Your task to perform on an android device: add a contact Image 0: 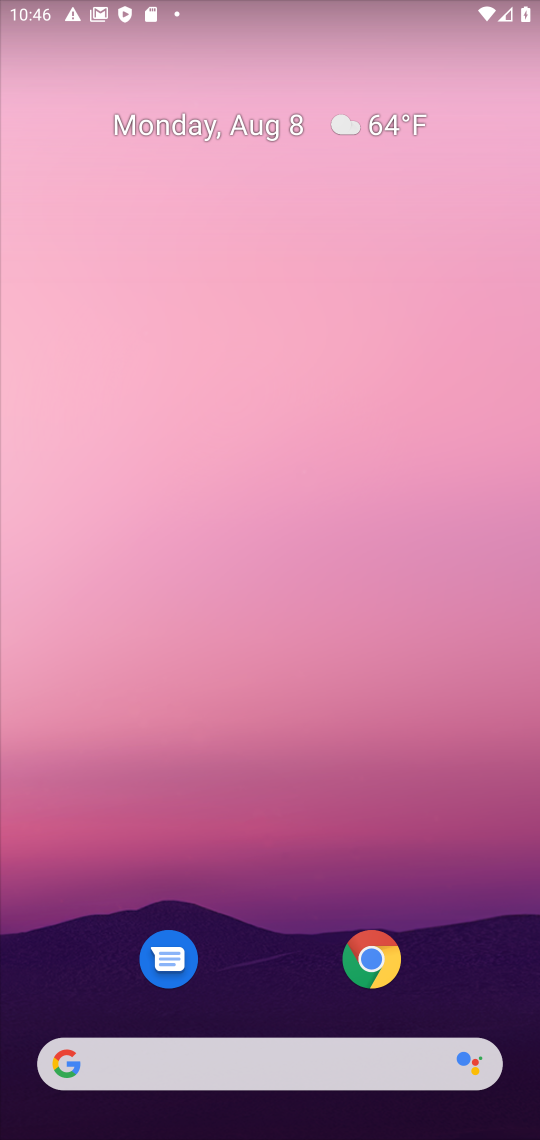
Step 0: drag from (283, 1003) to (187, 391)
Your task to perform on an android device: add a contact Image 1: 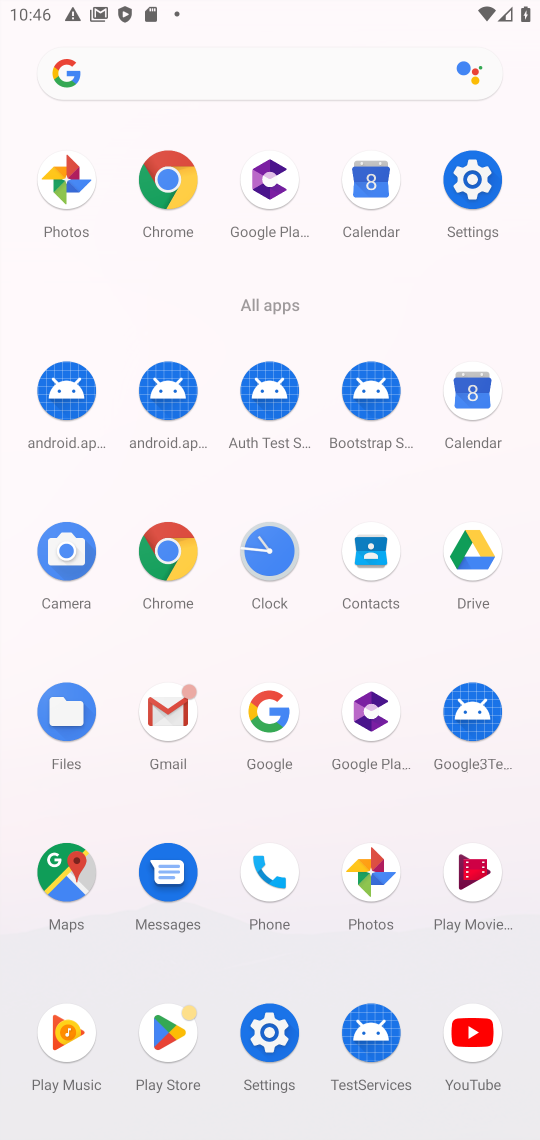
Step 1: click (375, 561)
Your task to perform on an android device: add a contact Image 2: 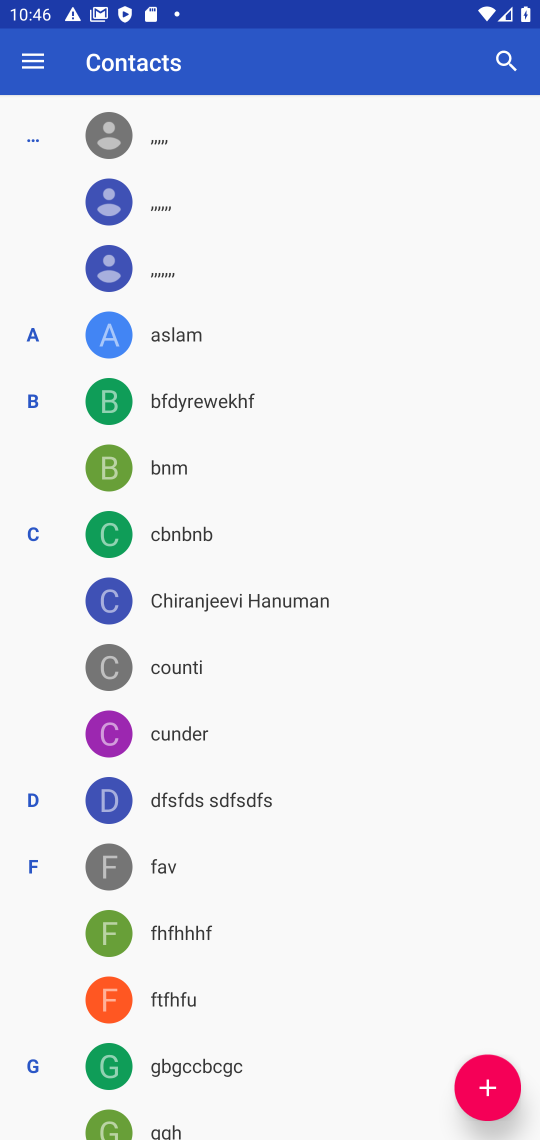
Step 2: click (489, 1114)
Your task to perform on an android device: add a contact Image 3: 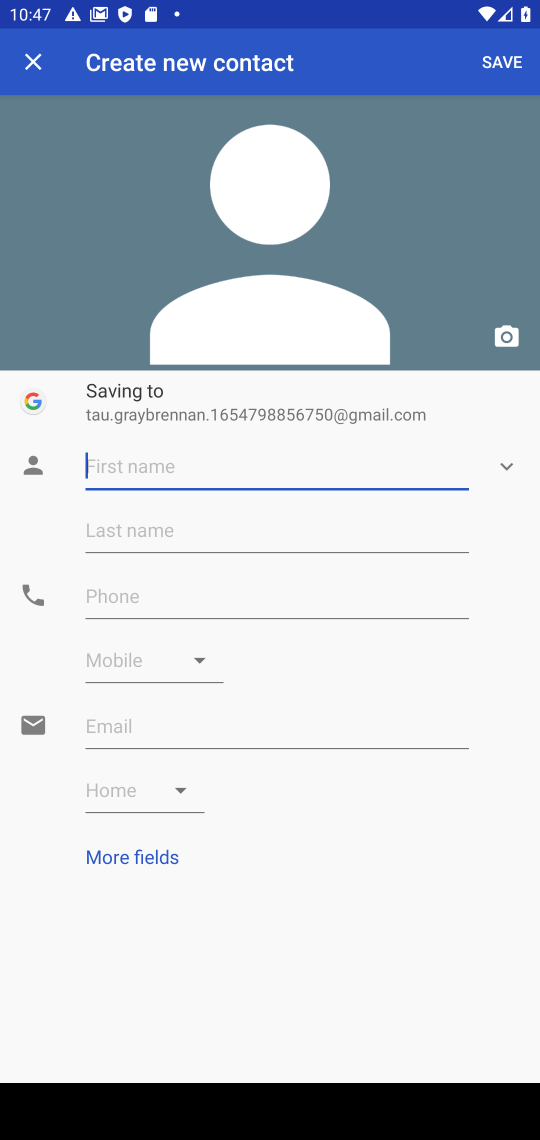
Step 3: type "vjggv"
Your task to perform on an android device: add a contact Image 4: 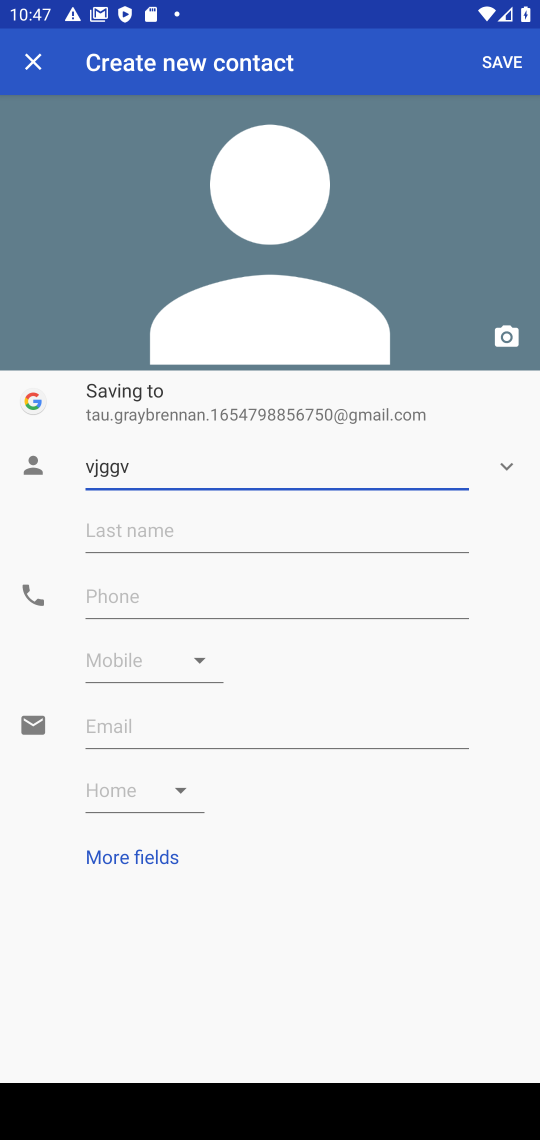
Step 4: click (299, 608)
Your task to perform on an android device: add a contact Image 5: 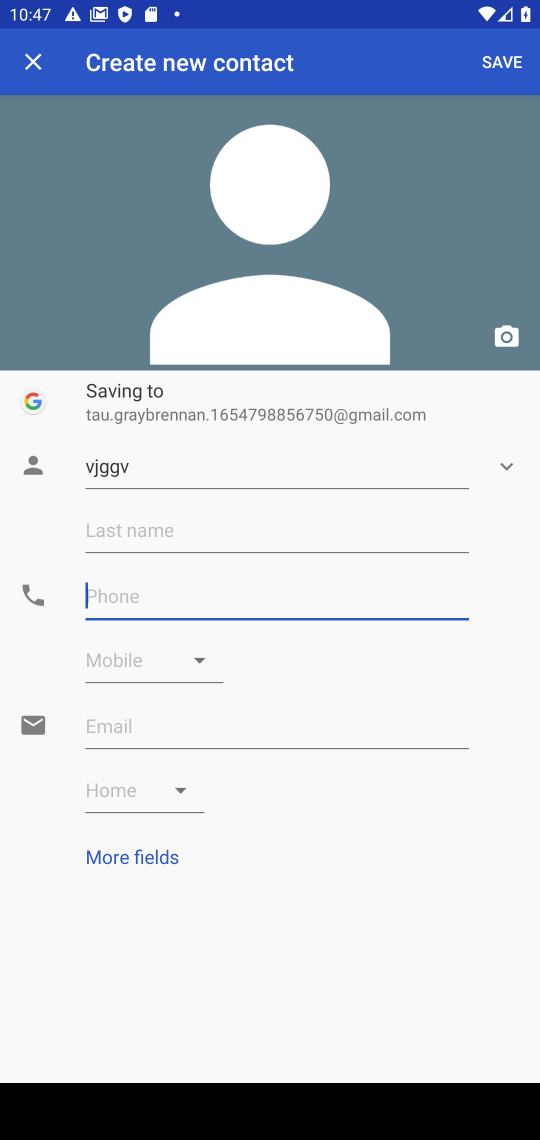
Step 5: type "9769"
Your task to perform on an android device: add a contact Image 6: 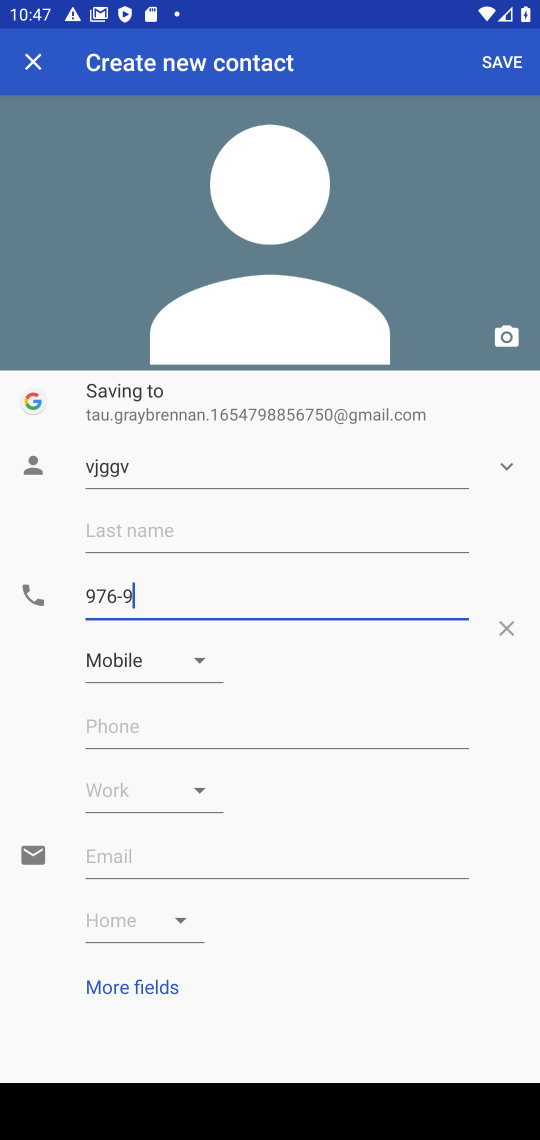
Step 6: click (513, 75)
Your task to perform on an android device: add a contact Image 7: 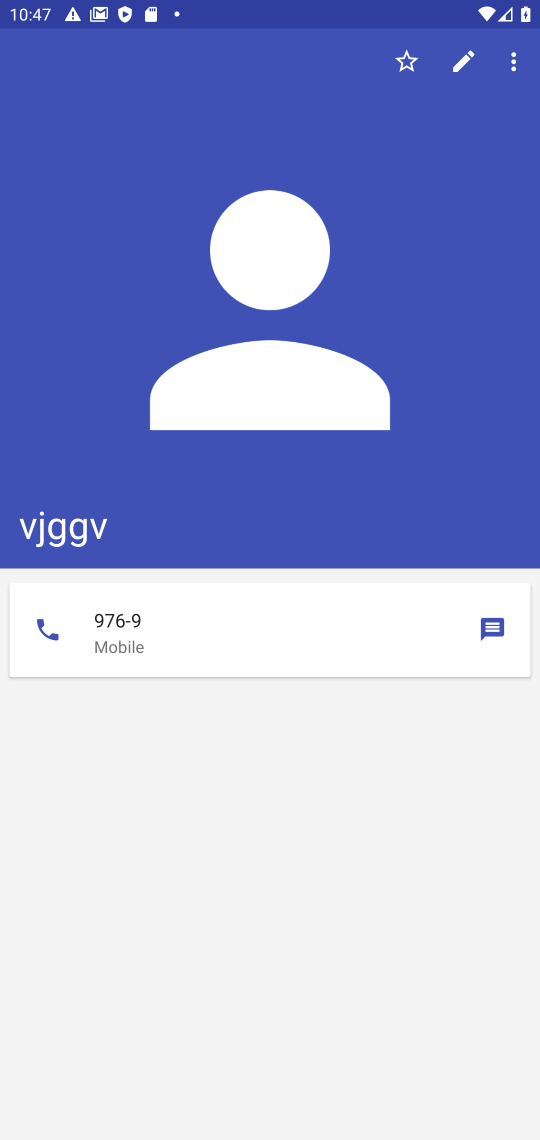
Step 7: task complete